Your task to perform on an android device: choose inbox layout in the gmail app Image 0: 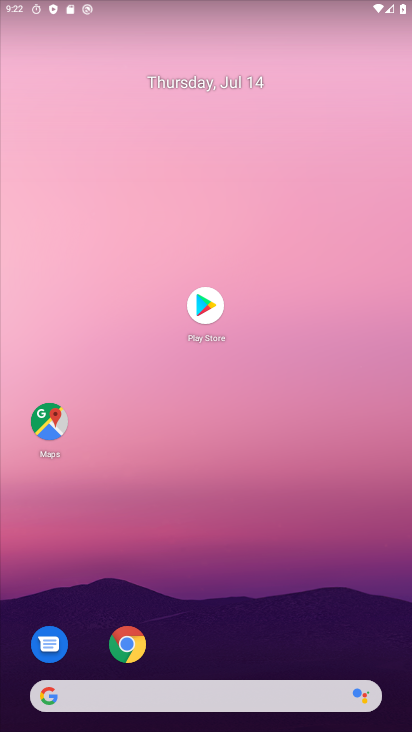
Step 0: click (402, 173)
Your task to perform on an android device: choose inbox layout in the gmail app Image 1: 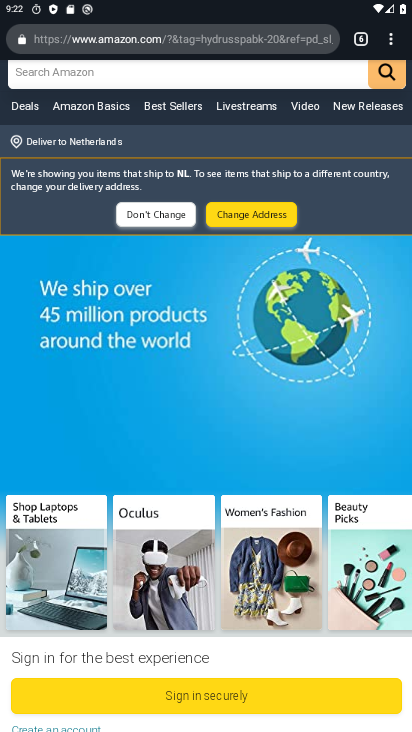
Step 1: drag from (245, 549) to (238, 98)
Your task to perform on an android device: choose inbox layout in the gmail app Image 2: 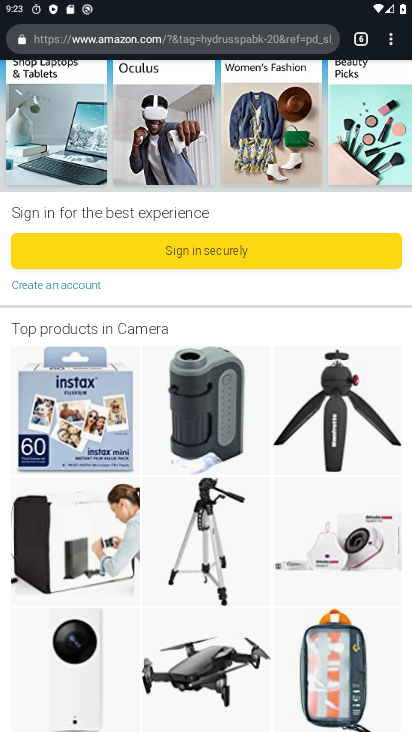
Step 2: press home button
Your task to perform on an android device: choose inbox layout in the gmail app Image 3: 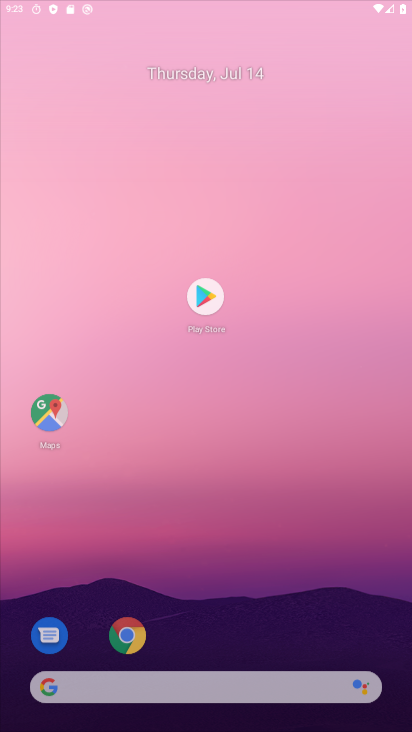
Step 3: drag from (185, 628) to (196, 222)
Your task to perform on an android device: choose inbox layout in the gmail app Image 4: 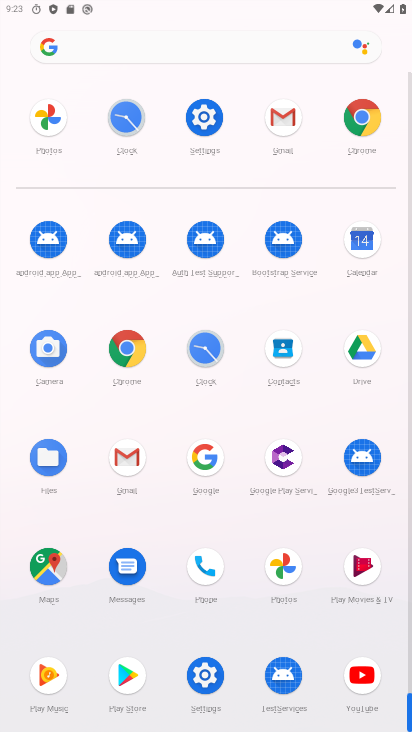
Step 4: click (284, 116)
Your task to perform on an android device: choose inbox layout in the gmail app Image 5: 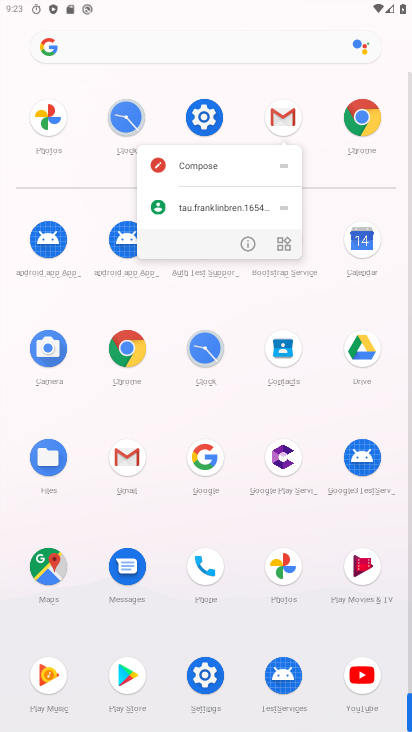
Step 5: click (245, 242)
Your task to perform on an android device: choose inbox layout in the gmail app Image 6: 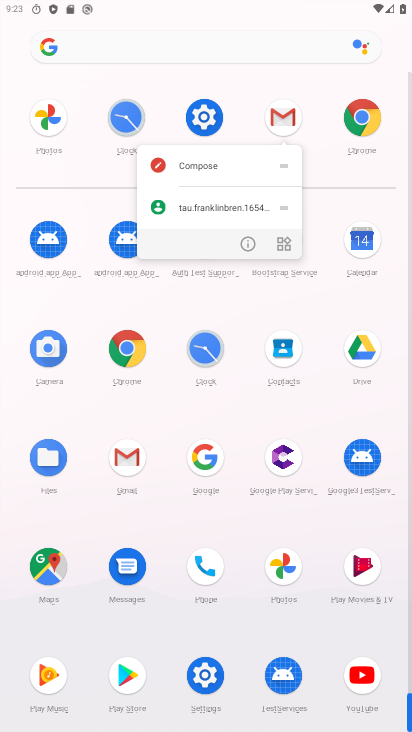
Step 6: click (245, 242)
Your task to perform on an android device: choose inbox layout in the gmail app Image 7: 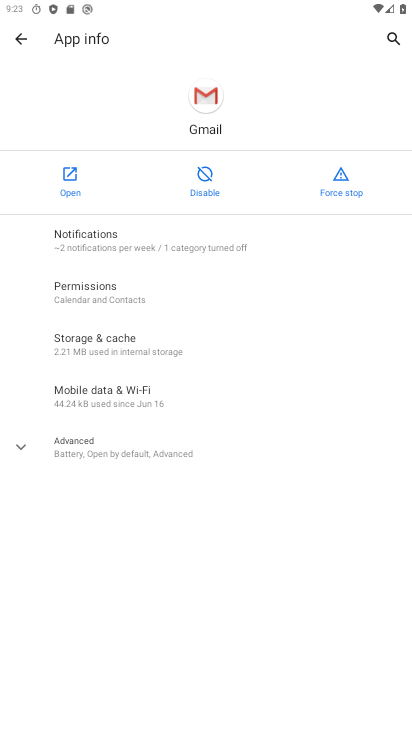
Step 7: click (64, 171)
Your task to perform on an android device: choose inbox layout in the gmail app Image 8: 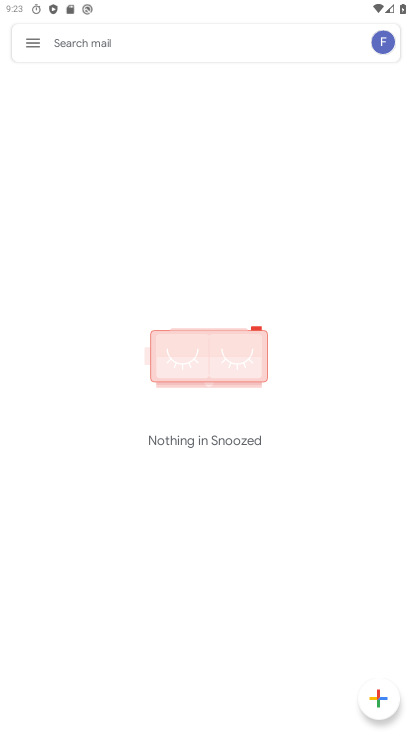
Step 8: drag from (240, 583) to (267, 411)
Your task to perform on an android device: choose inbox layout in the gmail app Image 9: 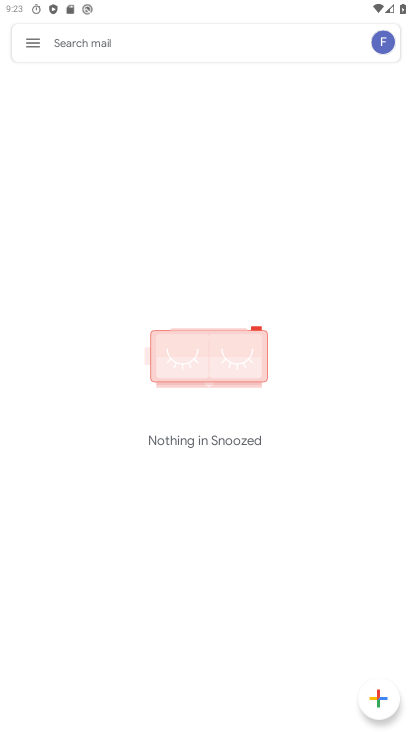
Step 9: drag from (197, 580) to (298, 168)
Your task to perform on an android device: choose inbox layout in the gmail app Image 10: 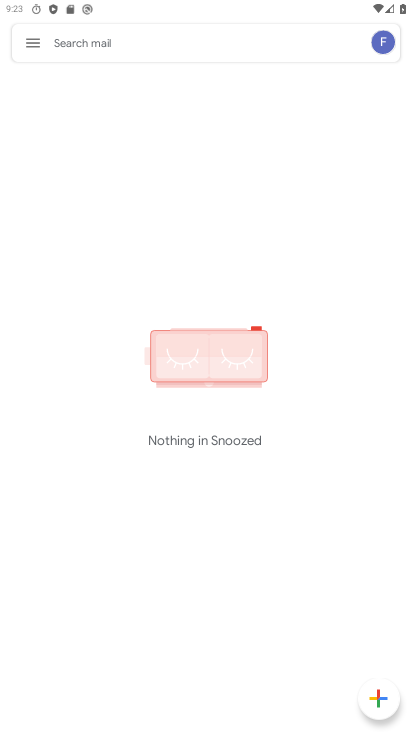
Step 10: click (22, 46)
Your task to perform on an android device: choose inbox layout in the gmail app Image 11: 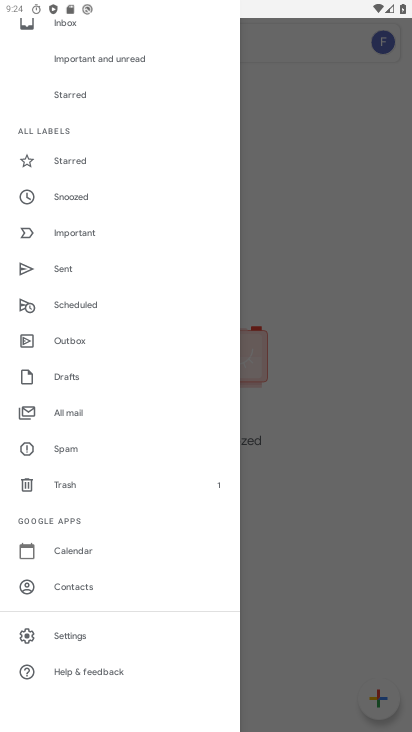
Step 11: drag from (77, 170) to (104, 601)
Your task to perform on an android device: choose inbox layout in the gmail app Image 12: 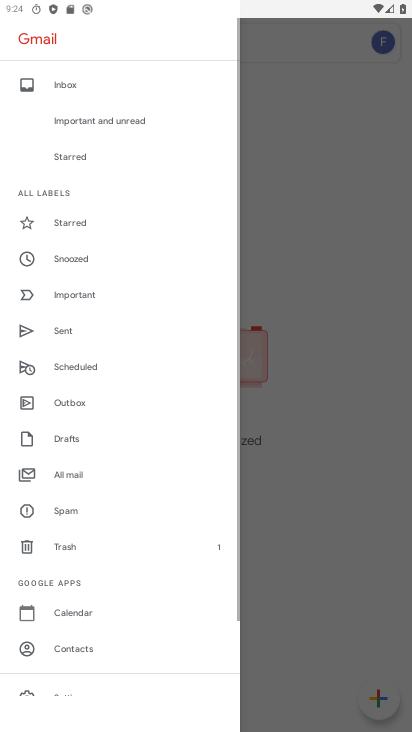
Step 12: click (81, 73)
Your task to perform on an android device: choose inbox layout in the gmail app Image 13: 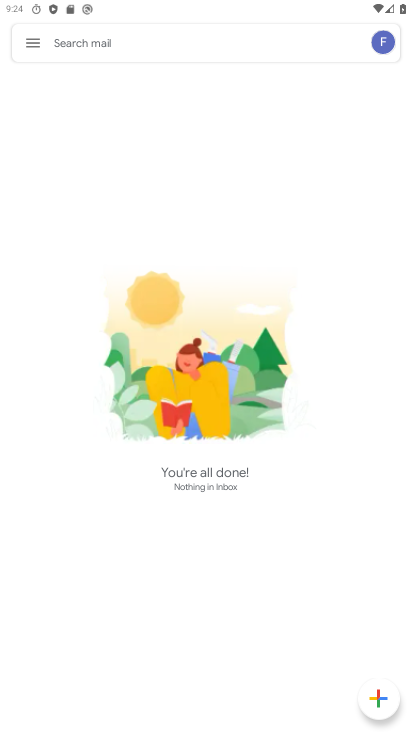
Step 13: task complete